Your task to perform on an android device: open sync settings in chrome Image 0: 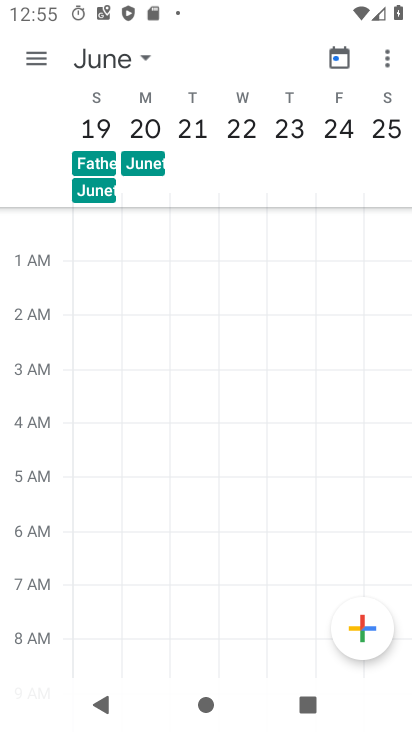
Step 0: press home button
Your task to perform on an android device: open sync settings in chrome Image 1: 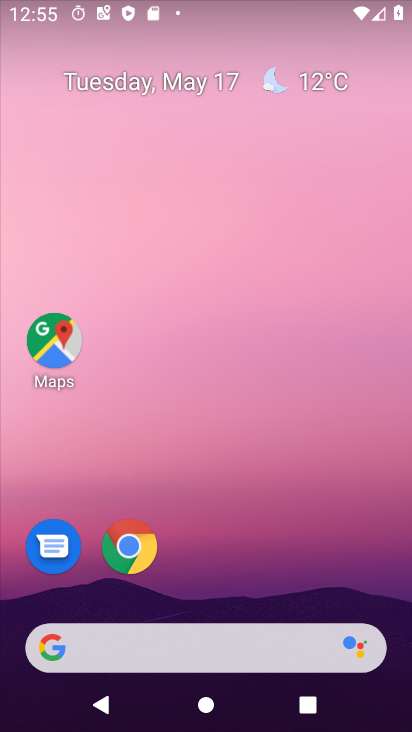
Step 1: click (127, 548)
Your task to perform on an android device: open sync settings in chrome Image 2: 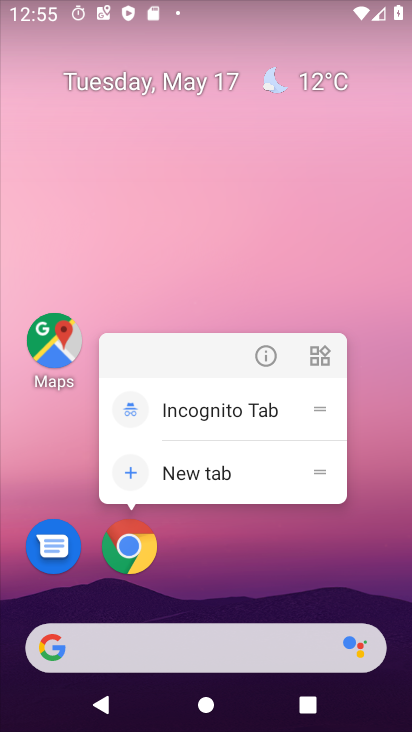
Step 2: click (130, 565)
Your task to perform on an android device: open sync settings in chrome Image 3: 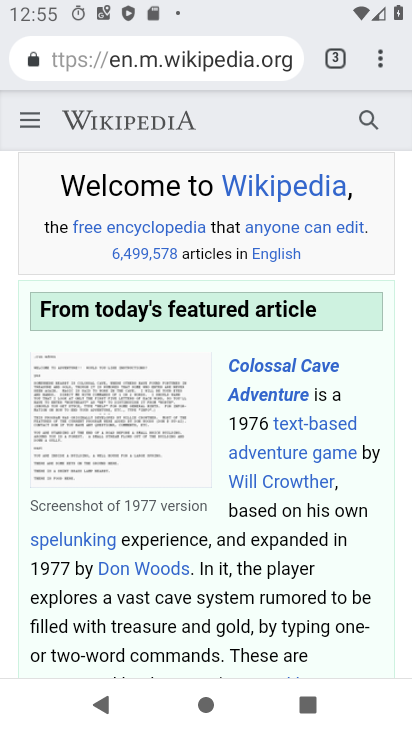
Step 3: drag from (377, 63) to (210, 582)
Your task to perform on an android device: open sync settings in chrome Image 4: 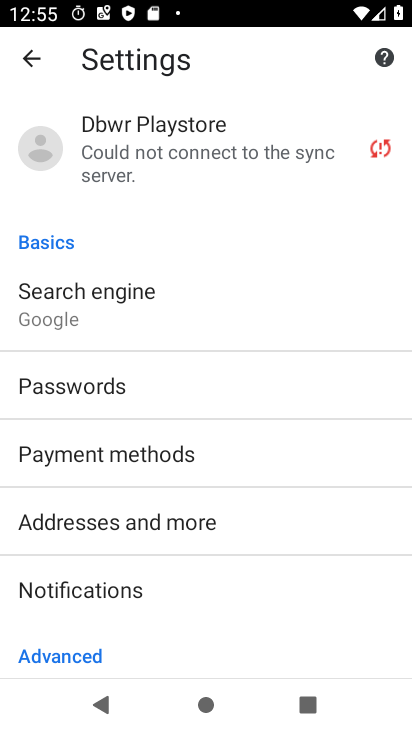
Step 4: click (218, 160)
Your task to perform on an android device: open sync settings in chrome Image 5: 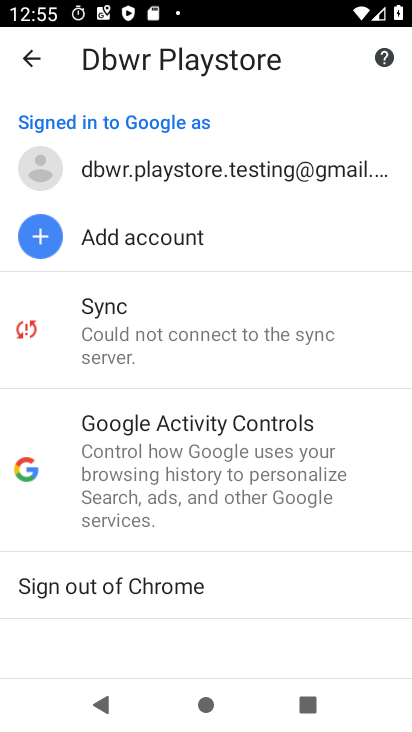
Step 5: click (187, 355)
Your task to perform on an android device: open sync settings in chrome Image 6: 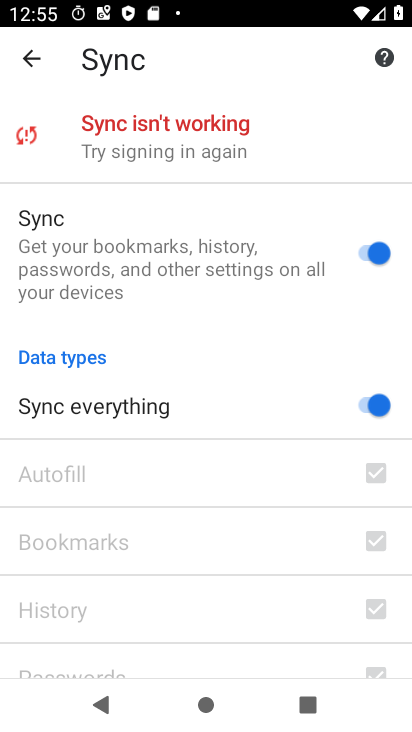
Step 6: task complete